Your task to perform on an android device: refresh tabs in the chrome app Image 0: 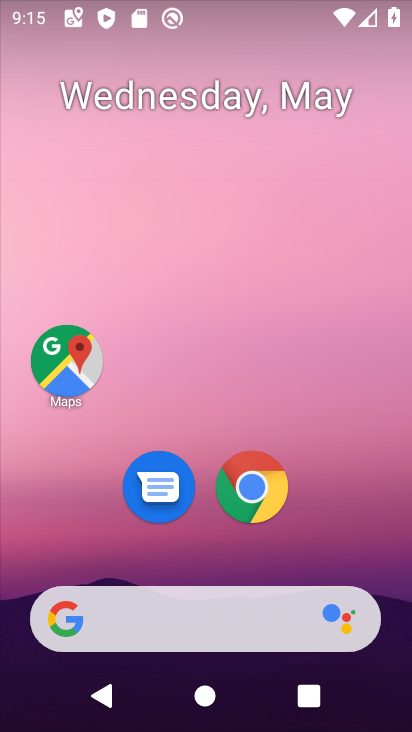
Step 0: click (258, 482)
Your task to perform on an android device: refresh tabs in the chrome app Image 1: 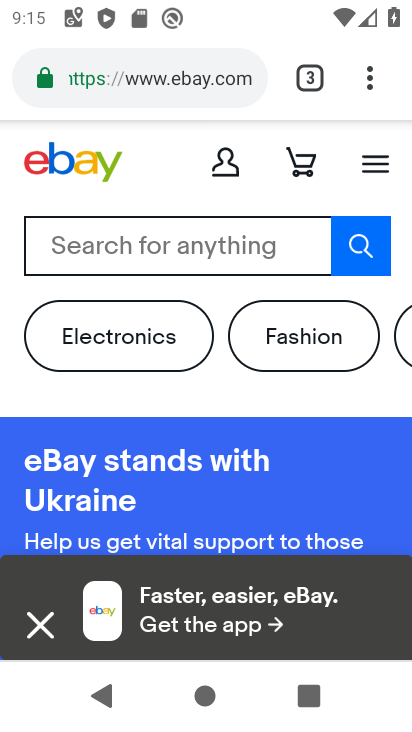
Step 1: click (366, 80)
Your task to perform on an android device: refresh tabs in the chrome app Image 2: 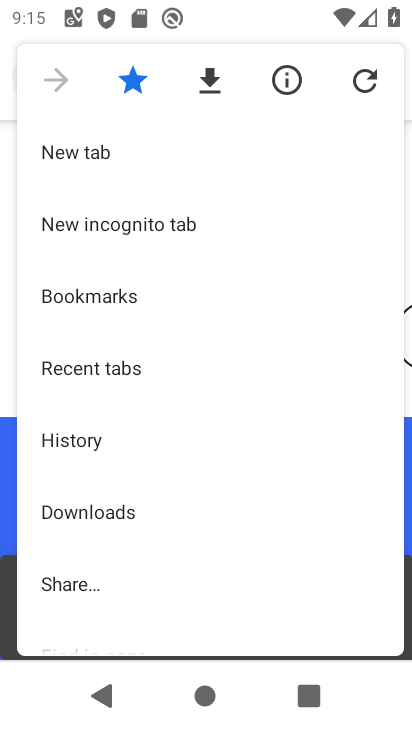
Step 2: click (361, 78)
Your task to perform on an android device: refresh tabs in the chrome app Image 3: 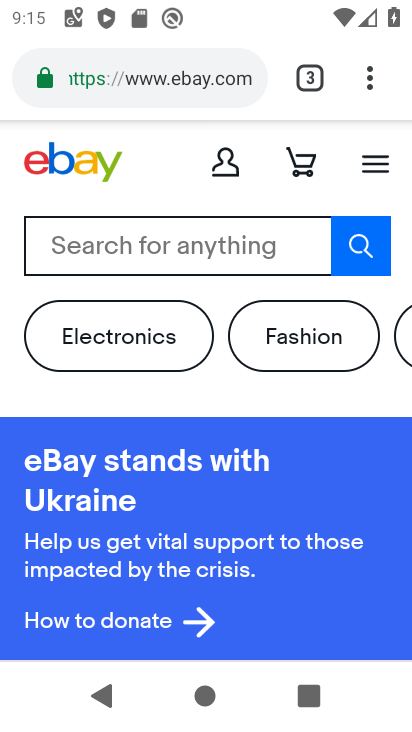
Step 3: task complete